Your task to perform on an android device: delete the emails in spam in the gmail app Image 0: 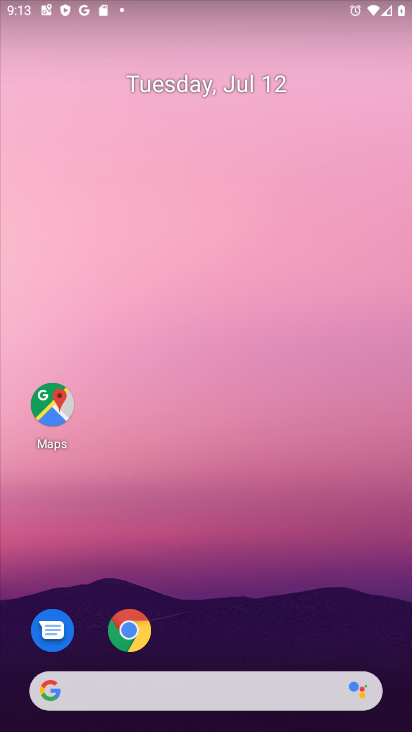
Step 0: drag from (215, 632) to (228, 150)
Your task to perform on an android device: delete the emails in spam in the gmail app Image 1: 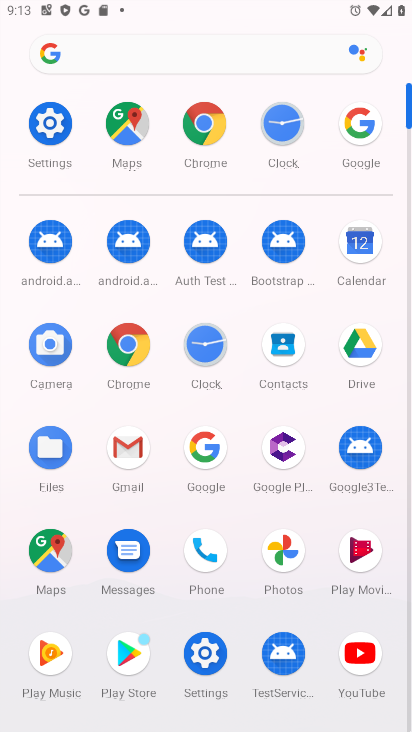
Step 1: click (128, 447)
Your task to perform on an android device: delete the emails in spam in the gmail app Image 2: 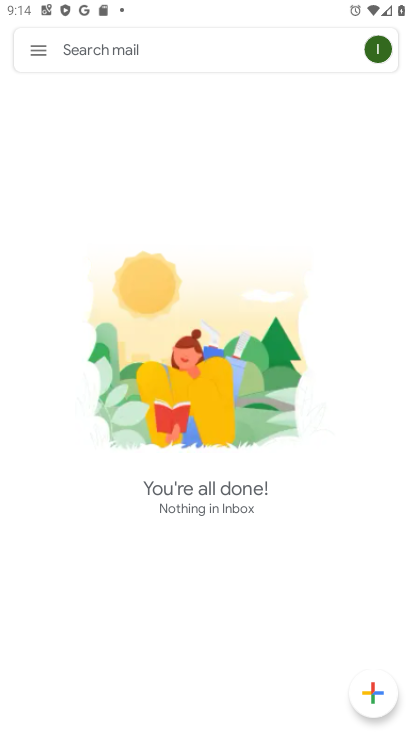
Step 2: click (26, 50)
Your task to perform on an android device: delete the emails in spam in the gmail app Image 3: 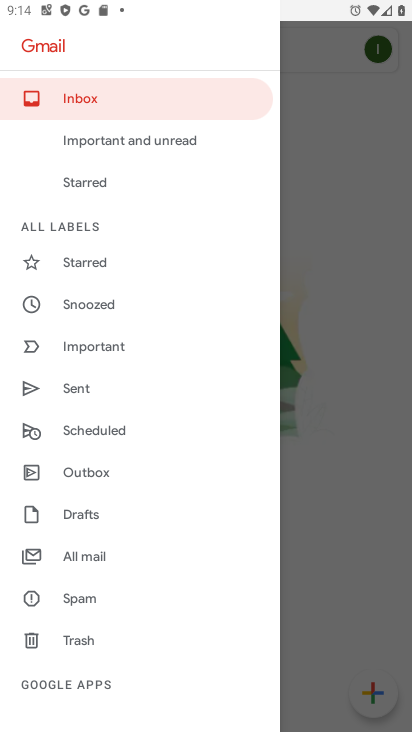
Step 3: click (74, 598)
Your task to perform on an android device: delete the emails in spam in the gmail app Image 4: 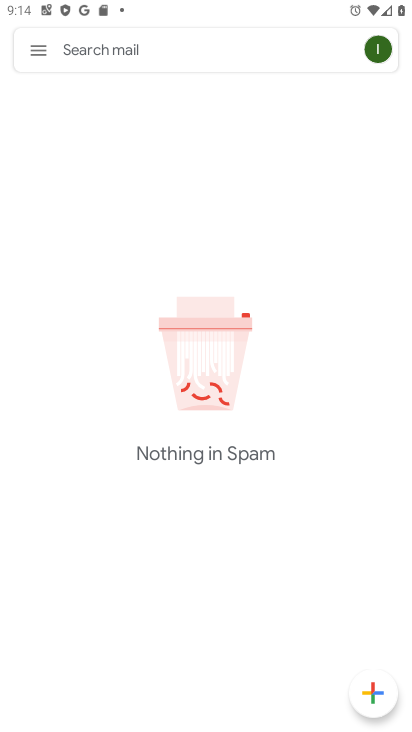
Step 4: task complete